Your task to perform on an android device: move a message to another label in the gmail app Image 0: 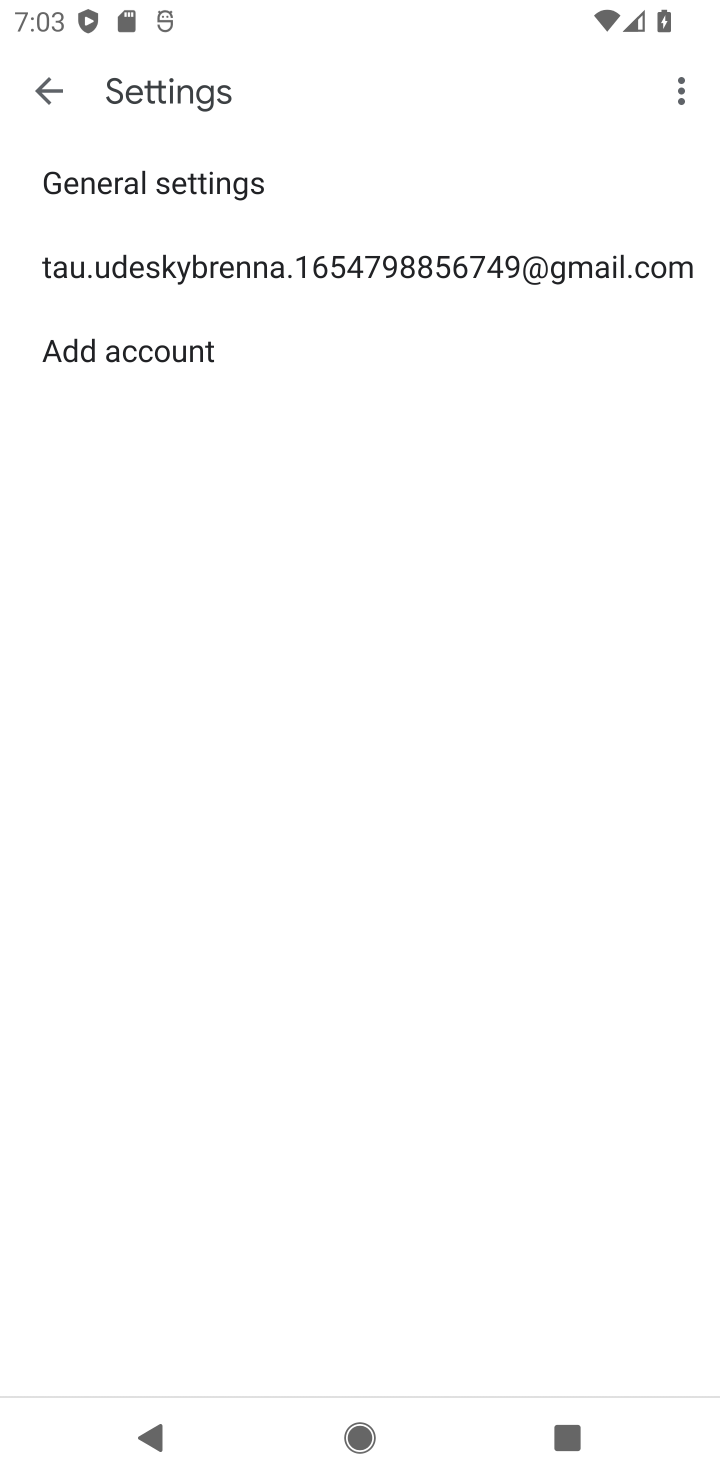
Step 0: press home button
Your task to perform on an android device: move a message to another label in the gmail app Image 1: 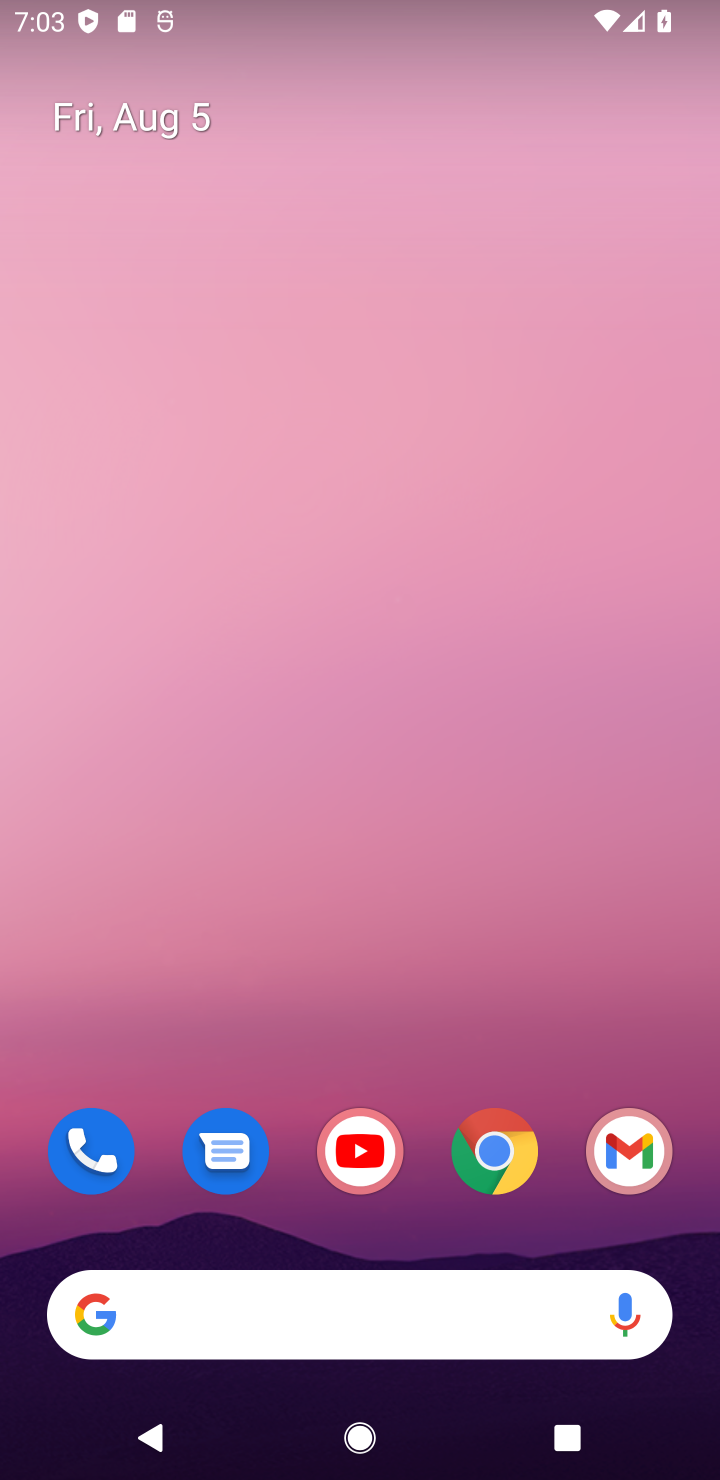
Step 1: drag from (449, 1209) to (675, 83)
Your task to perform on an android device: move a message to another label in the gmail app Image 2: 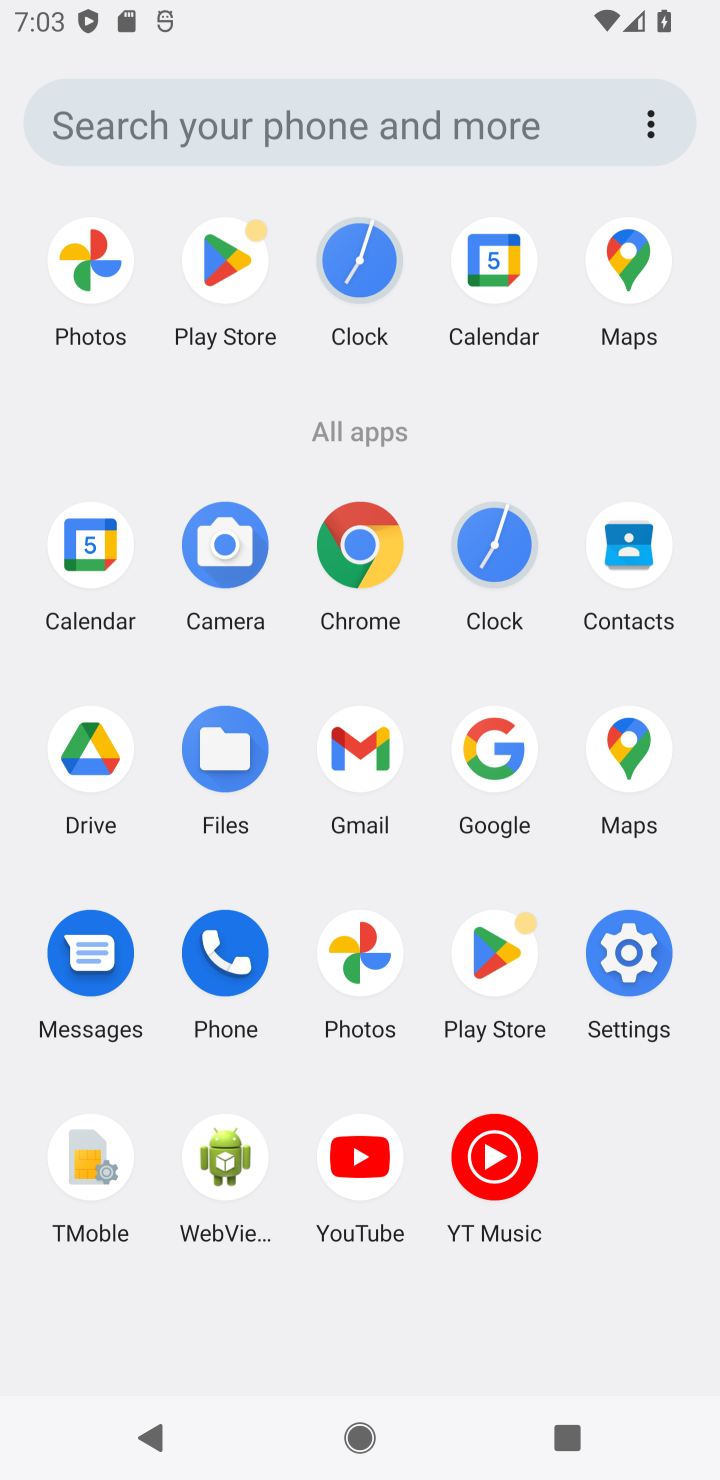
Step 2: click (369, 716)
Your task to perform on an android device: move a message to another label in the gmail app Image 3: 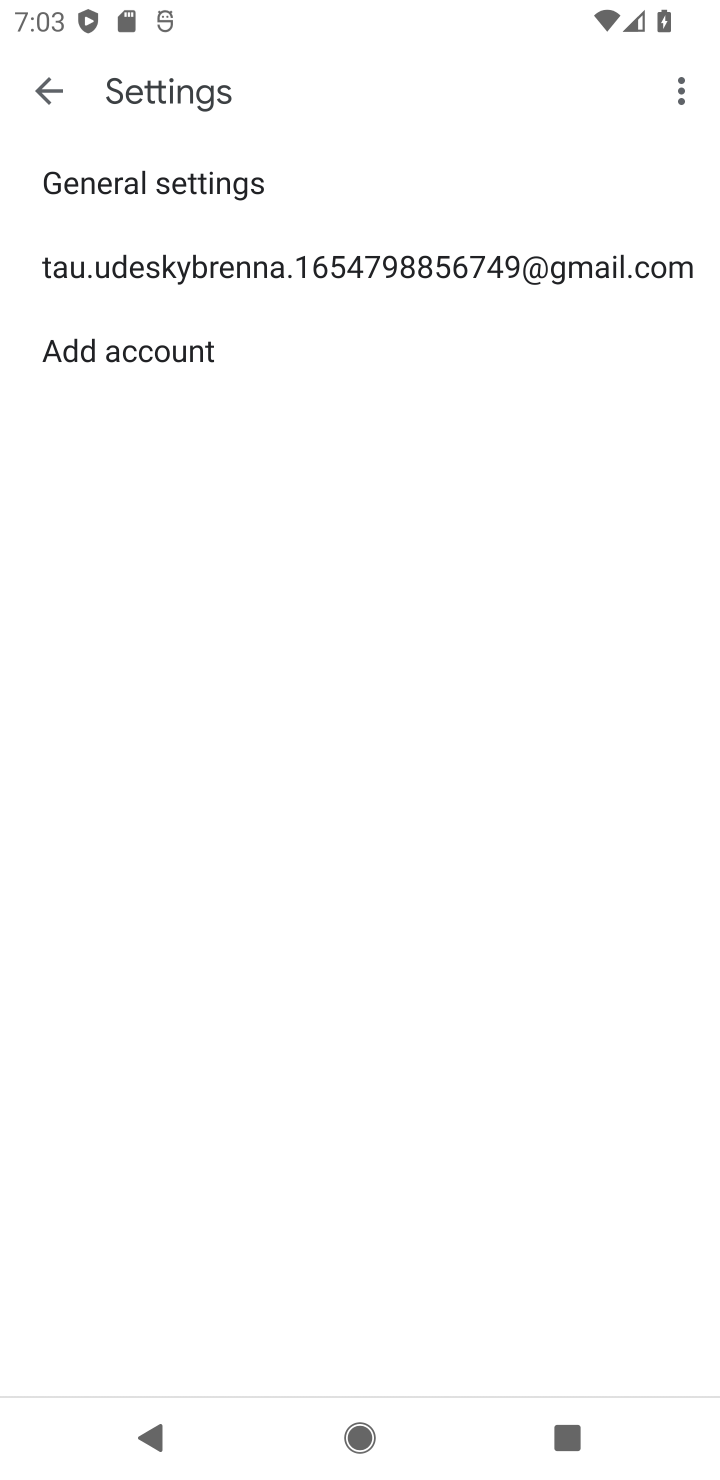
Step 3: click (25, 90)
Your task to perform on an android device: move a message to another label in the gmail app Image 4: 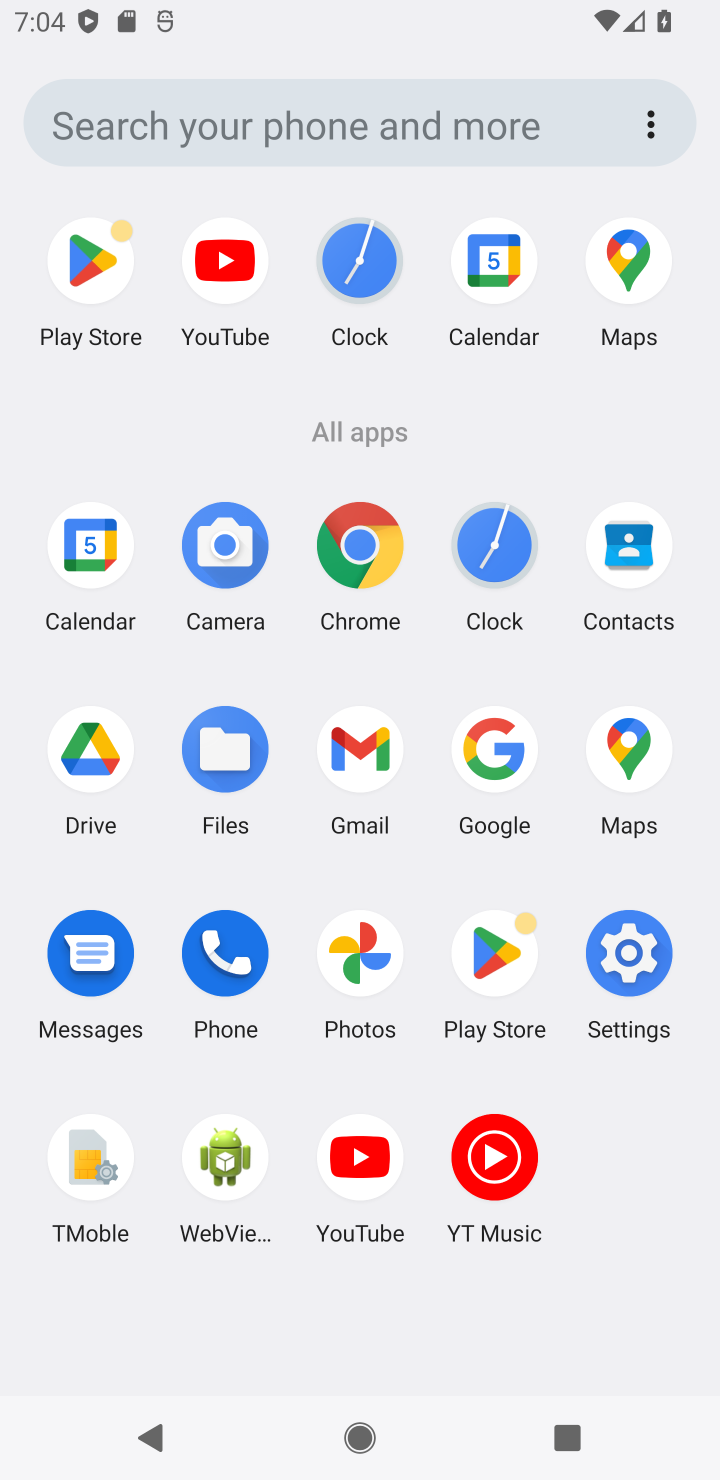
Step 4: click (335, 743)
Your task to perform on an android device: move a message to another label in the gmail app Image 5: 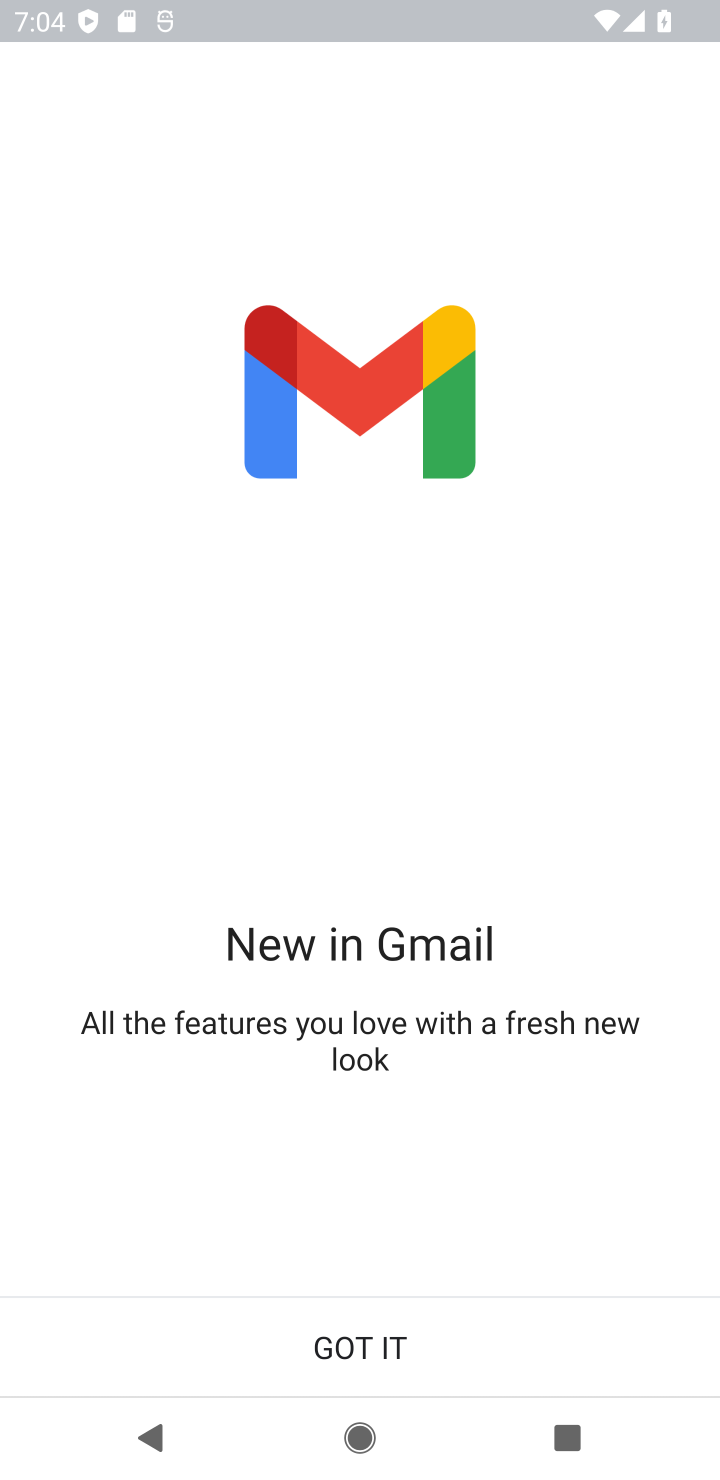
Step 5: click (451, 1328)
Your task to perform on an android device: move a message to another label in the gmail app Image 6: 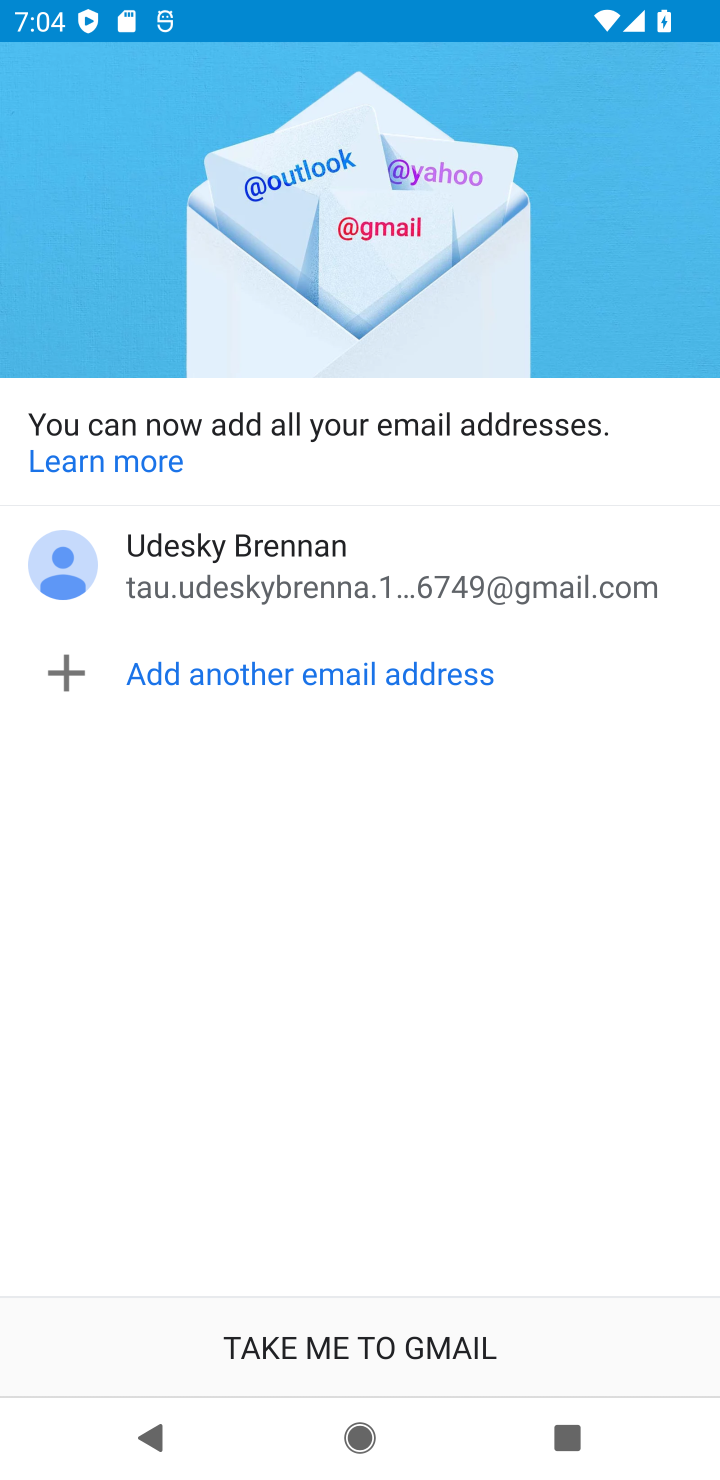
Step 6: click (458, 1323)
Your task to perform on an android device: move a message to another label in the gmail app Image 7: 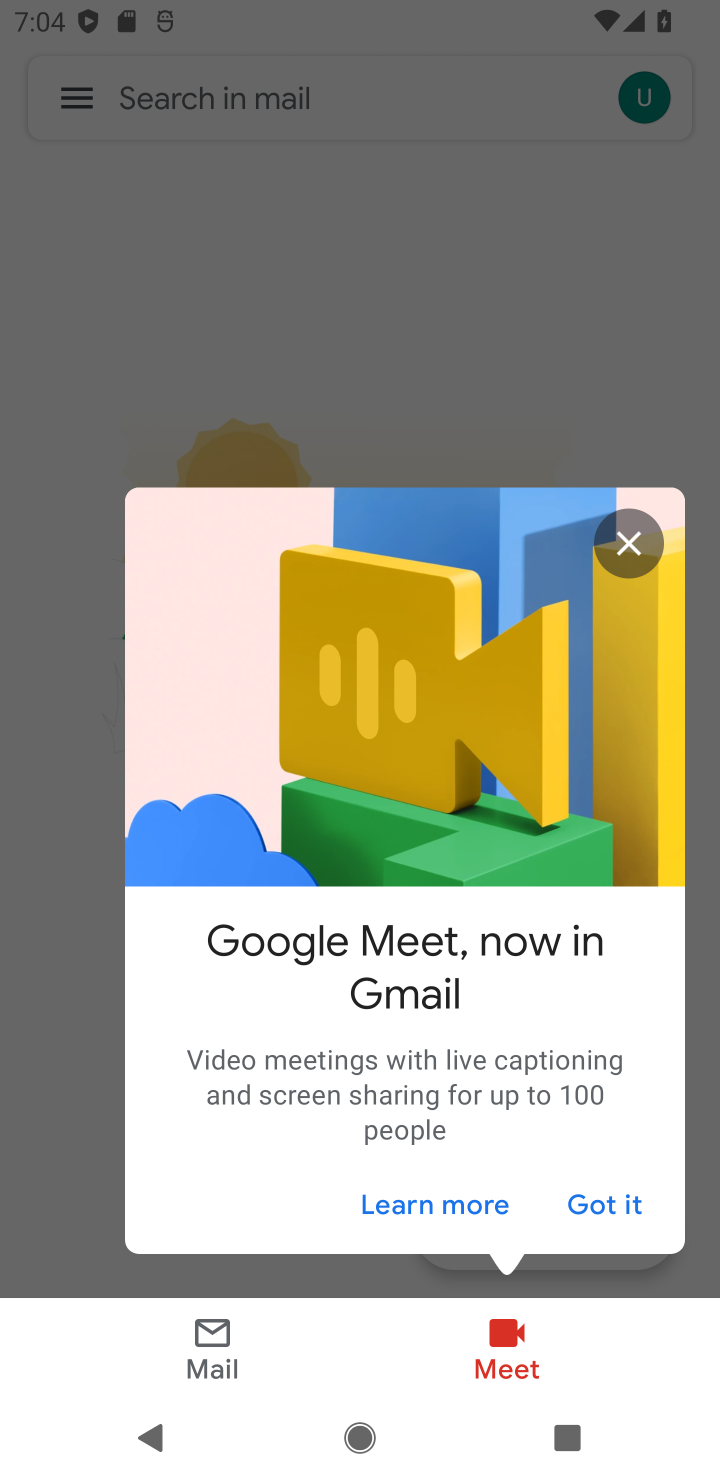
Step 7: click (613, 1188)
Your task to perform on an android device: move a message to another label in the gmail app Image 8: 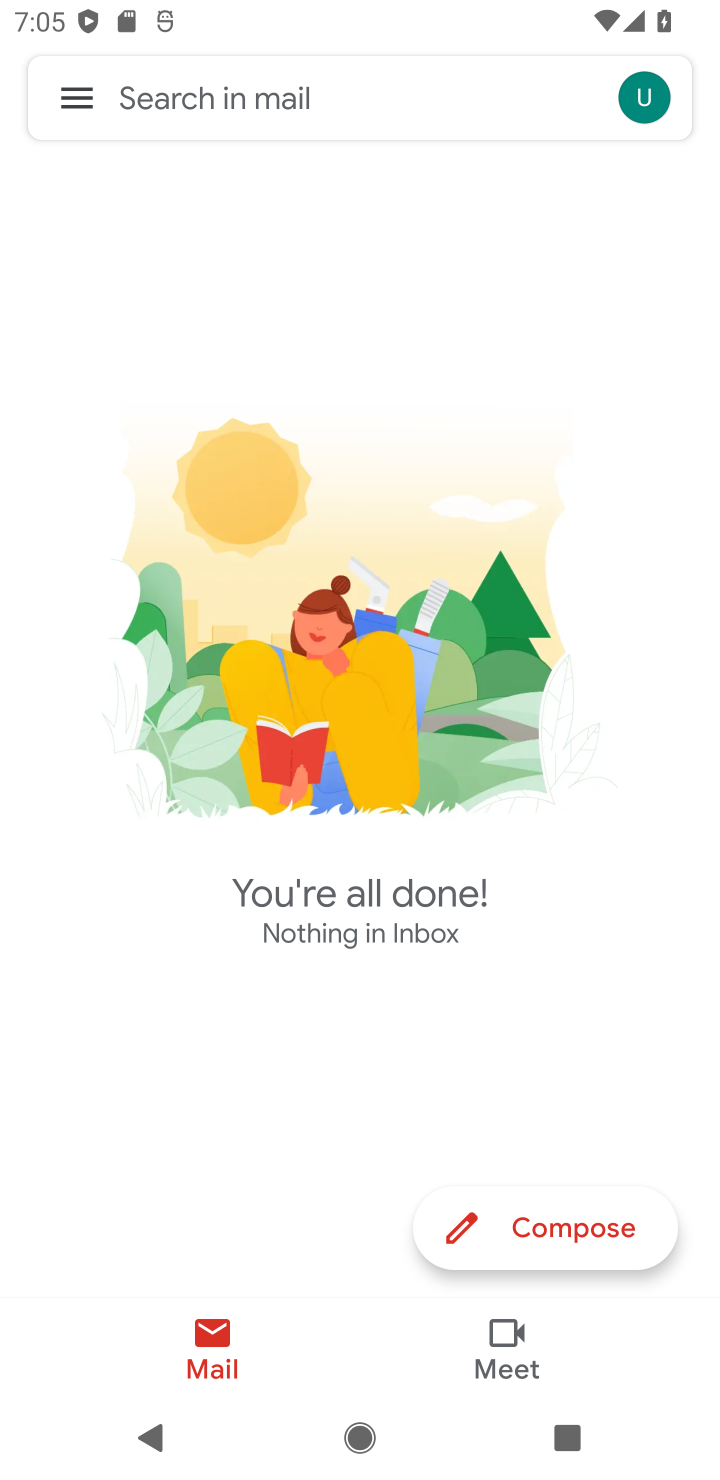
Step 8: task complete